Your task to perform on an android device: Go to Wikipedia Image 0: 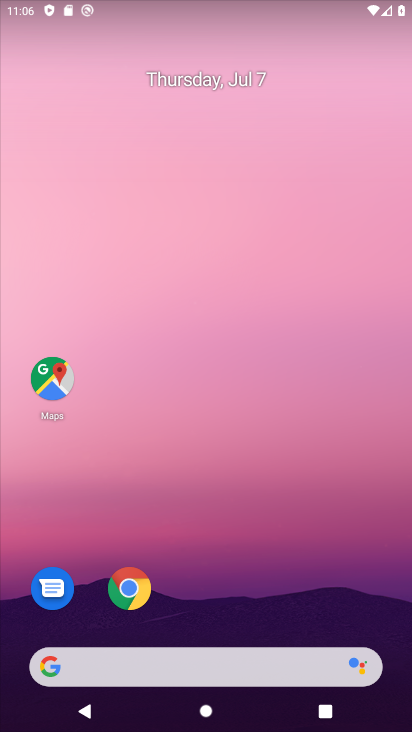
Step 0: click (121, 575)
Your task to perform on an android device: Go to Wikipedia Image 1: 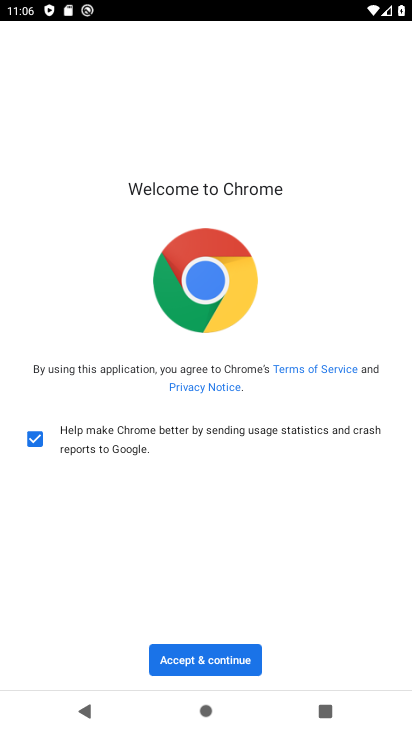
Step 1: click (249, 666)
Your task to perform on an android device: Go to Wikipedia Image 2: 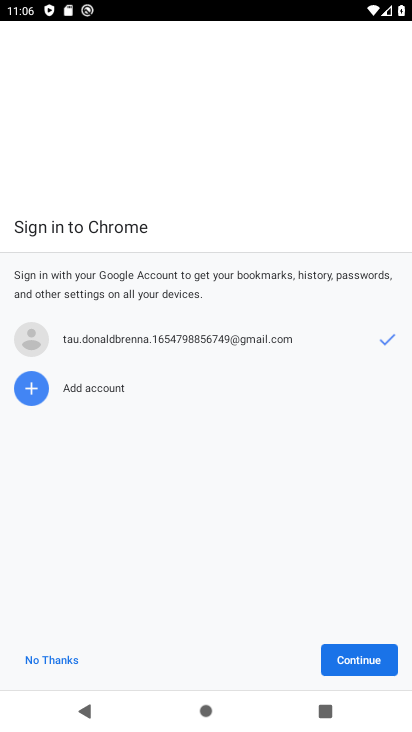
Step 2: click (369, 655)
Your task to perform on an android device: Go to Wikipedia Image 3: 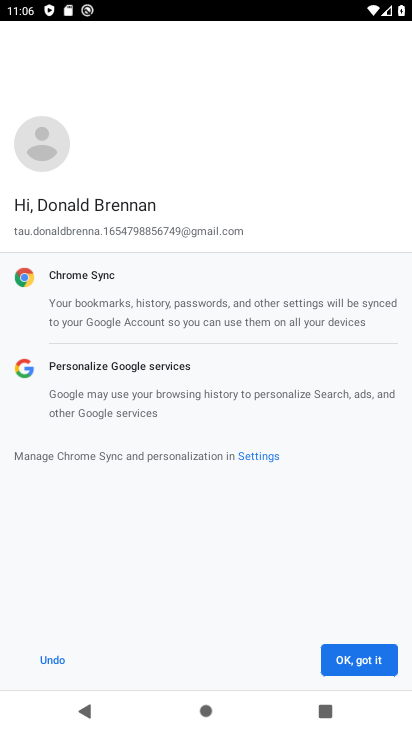
Step 3: click (369, 655)
Your task to perform on an android device: Go to Wikipedia Image 4: 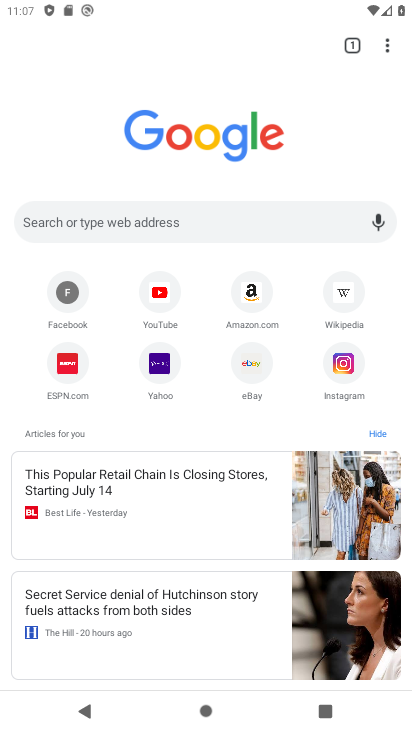
Step 4: click (341, 297)
Your task to perform on an android device: Go to Wikipedia Image 5: 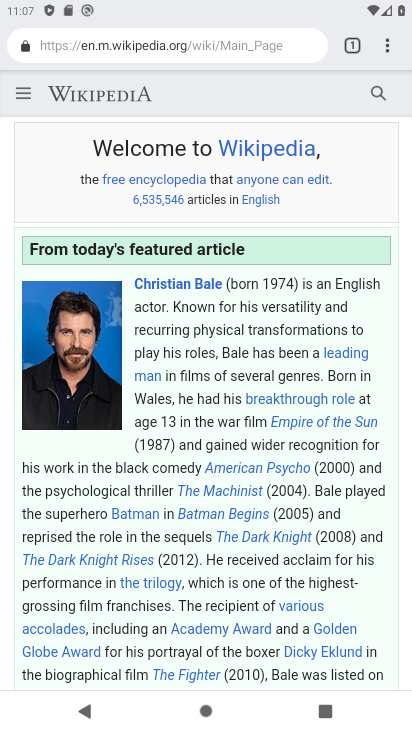
Step 5: task complete